Your task to perform on an android device: turn off improve location accuracy Image 0: 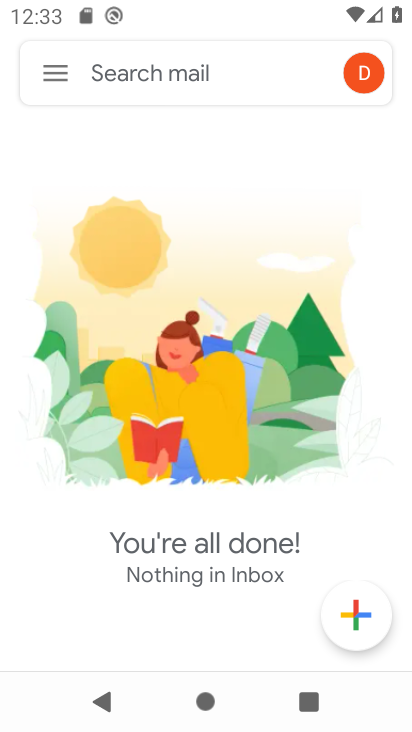
Step 0: press home button
Your task to perform on an android device: turn off improve location accuracy Image 1: 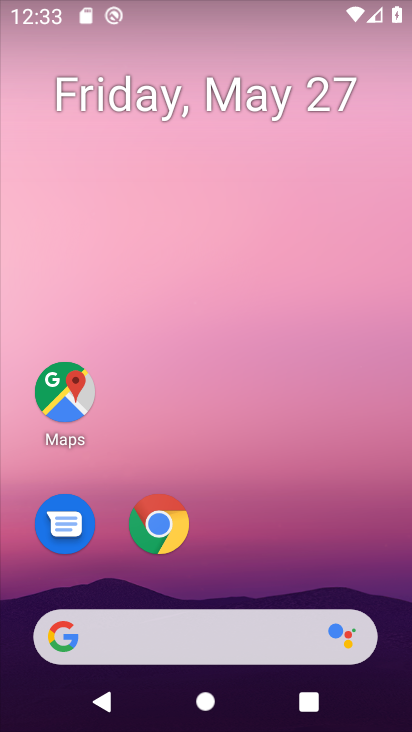
Step 1: drag from (275, 507) to (281, 60)
Your task to perform on an android device: turn off improve location accuracy Image 2: 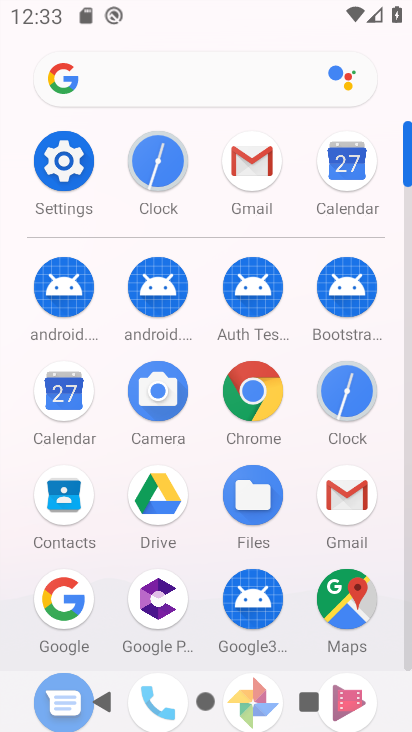
Step 2: click (72, 157)
Your task to perform on an android device: turn off improve location accuracy Image 3: 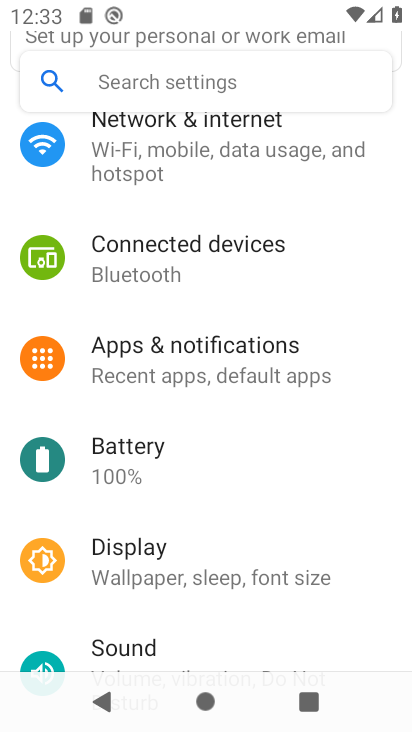
Step 3: drag from (228, 536) to (261, 201)
Your task to perform on an android device: turn off improve location accuracy Image 4: 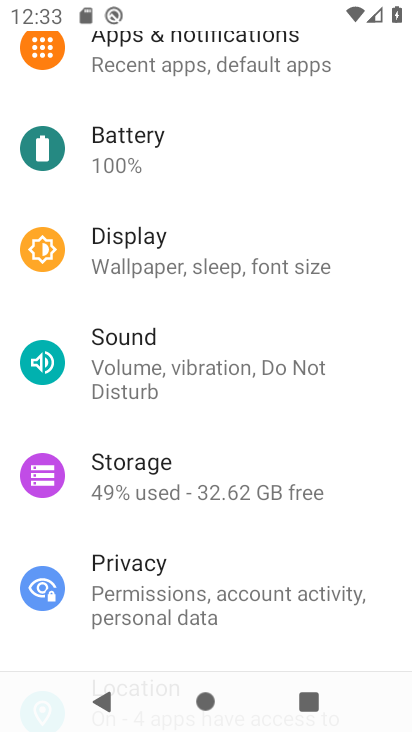
Step 4: drag from (233, 536) to (244, 254)
Your task to perform on an android device: turn off improve location accuracy Image 5: 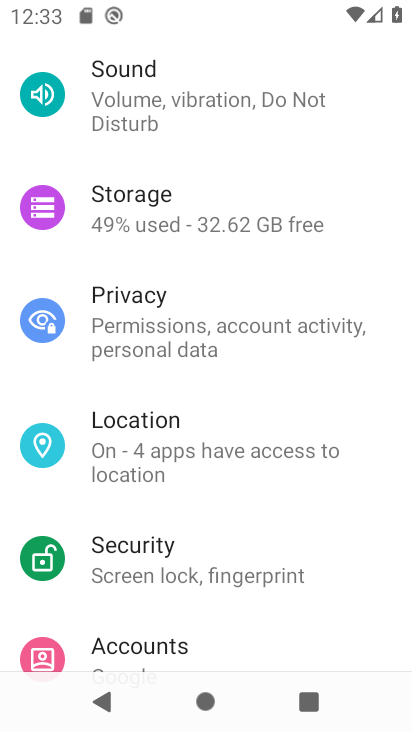
Step 5: click (227, 447)
Your task to perform on an android device: turn off improve location accuracy Image 6: 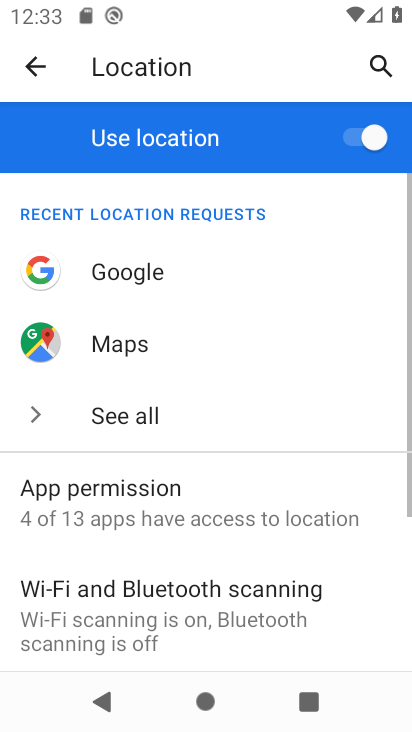
Step 6: drag from (236, 590) to (253, 225)
Your task to perform on an android device: turn off improve location accuracy Image 7: 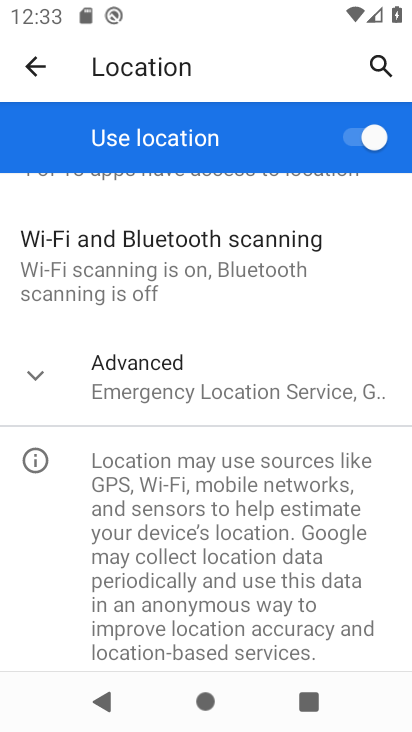
Step 7: click (34, 370)
Your task to perform on an android device: turn off improve location accuracy Image 8: 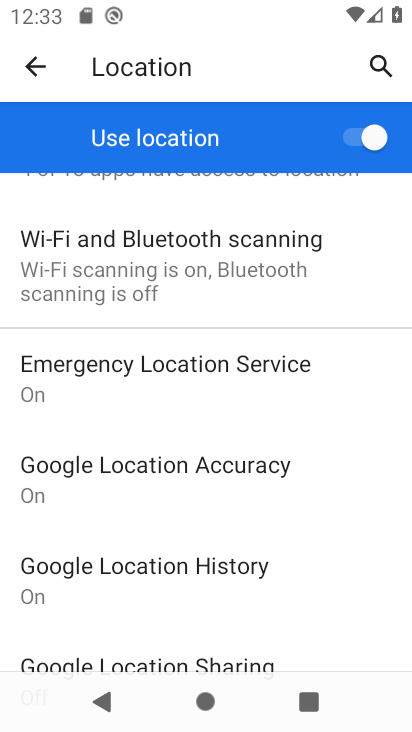
Step 8: click (232, 491)
Your task to perform on an android device: turn off improve location accuracy Image 9: 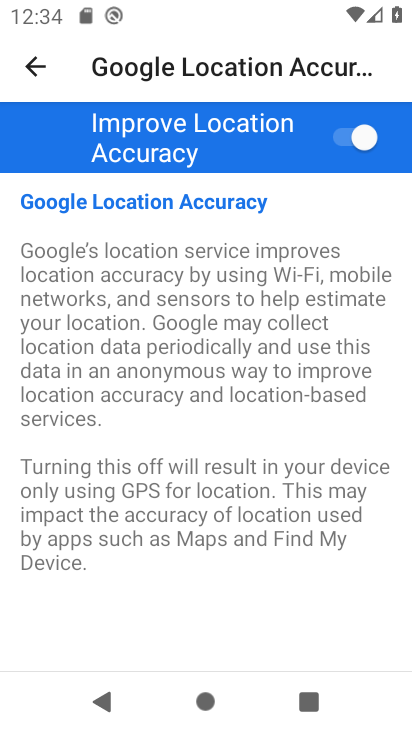
Step 9: click (356, 138)
Your task to perform on an android device: turn off improve location accuracy Image 10: 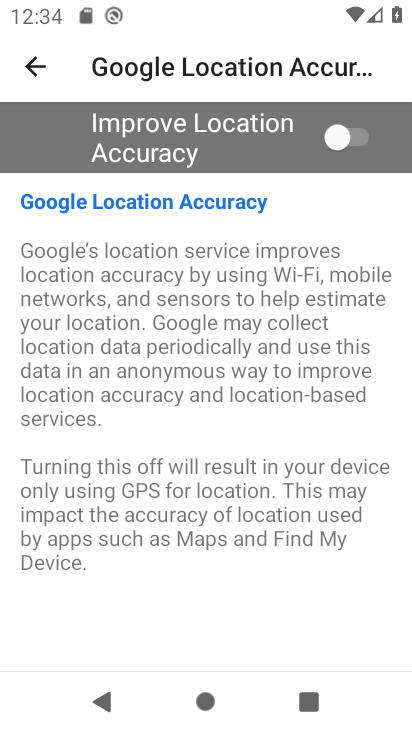
Step 10: task complete